Your task to perform on an android device: read, delete, or share a saved page in the chrome app Image 0: 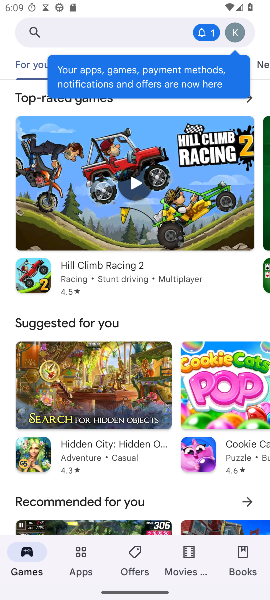
Step 0: press home button
Your task to perform on an android device: read, delete, or share a saved page in the chrome app Image 1: 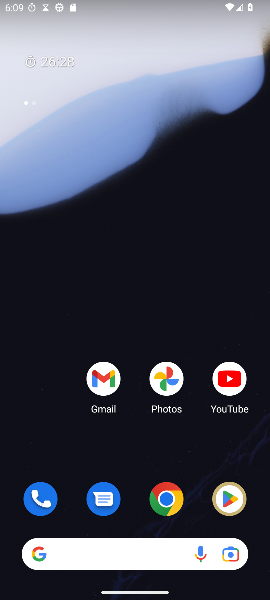
Step 1: drag from (93, 513) to (22, 139)
Your task to perform on an android device: read, delete, or share a saved page in the chrome app Image 2: 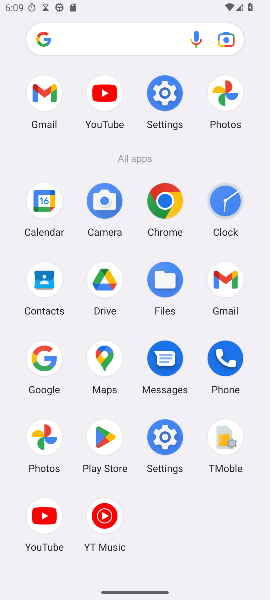
Step 2: click (158, 205)
Your task to perform on an android device: read, delete, or share a saved page in the chrome app Image 3: 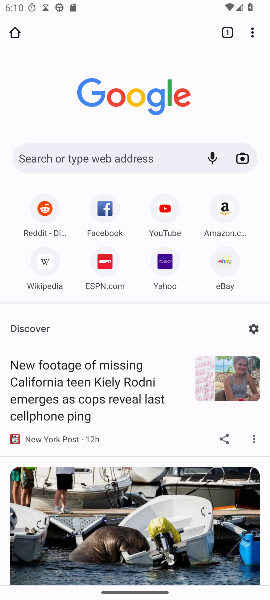
Step 3: task complete